Your task to perform on an android device: toggle translation in the chrome app Image 0: 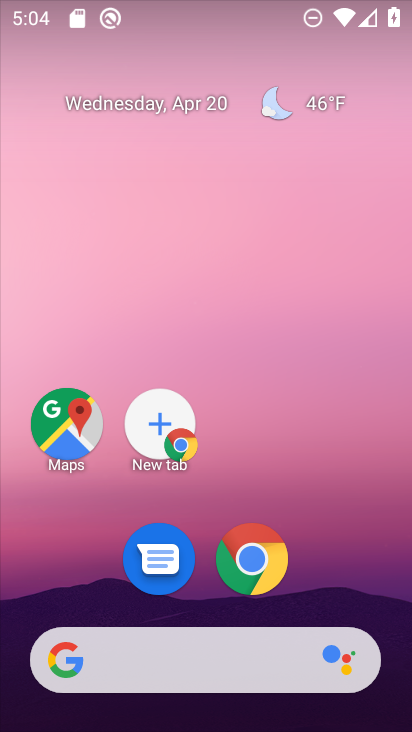
Step 0: click (265, 574)
Your task to perform on an android device: toggle translation in the chrome app Image 1: 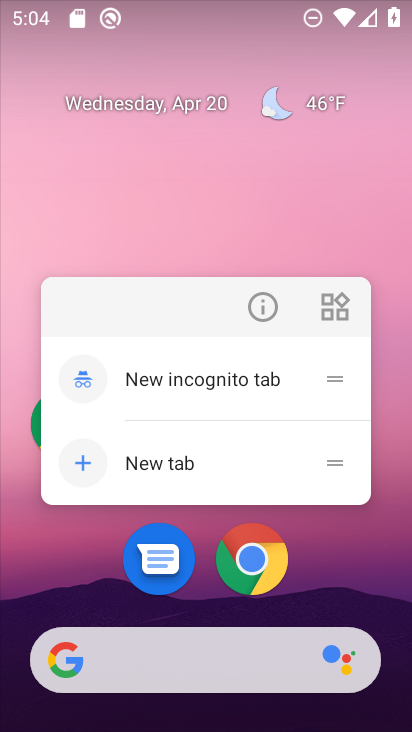
Step 1: click (258, 561)
Your task to perform on an android device: toggle translation in the chrome app Image 2: 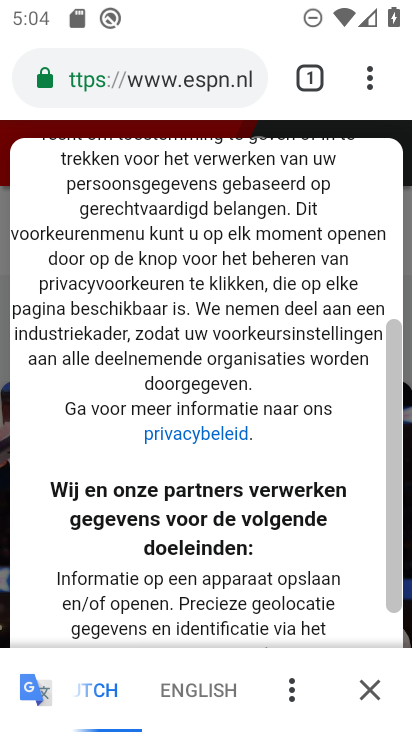
Step 2: click (373, 687)
Your task to perform on an android device: toggle translation in the chrome app Image 3: 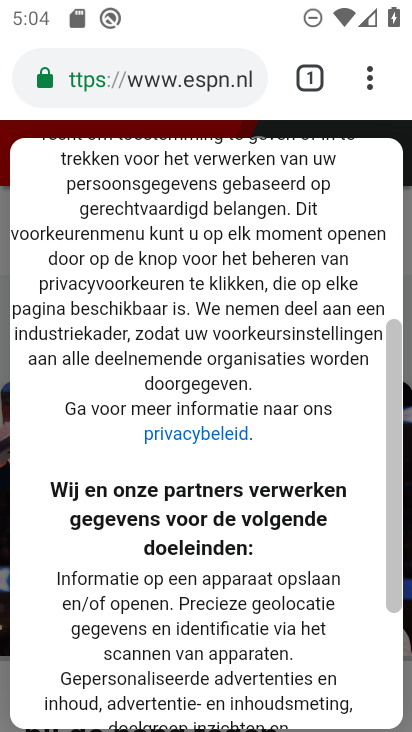
Step 3: click (379, 74)
Your task to perform on an android device: toggle translation in the chrome app Image 4: 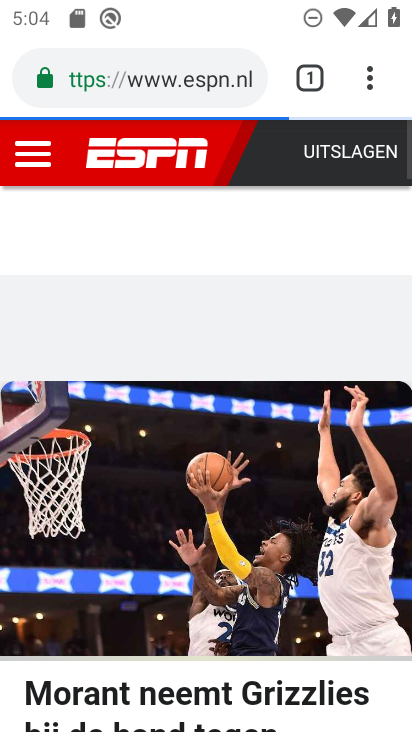
Step 4: click (364, 76)
Your task to perform on an android device: toggle translation in the chrome app Image 5: 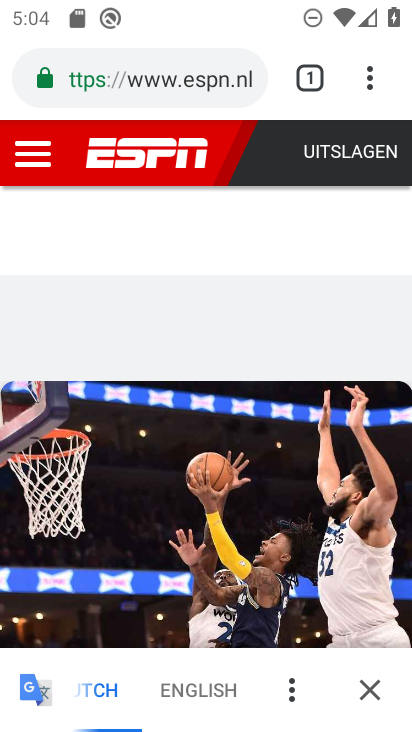
Step 5: click (360, 91)
Your task to perform on an android device: toggle translation in the chrome app Image 6: 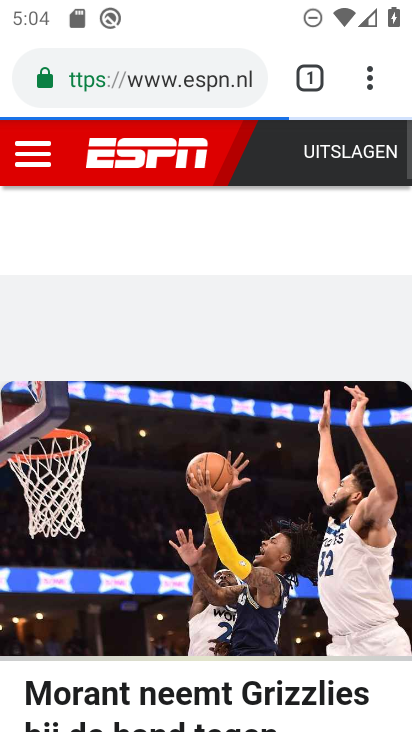
Step 6: click (387, 68)
Your task to perform on an android device: toggle translation in the chrome app Image 7: 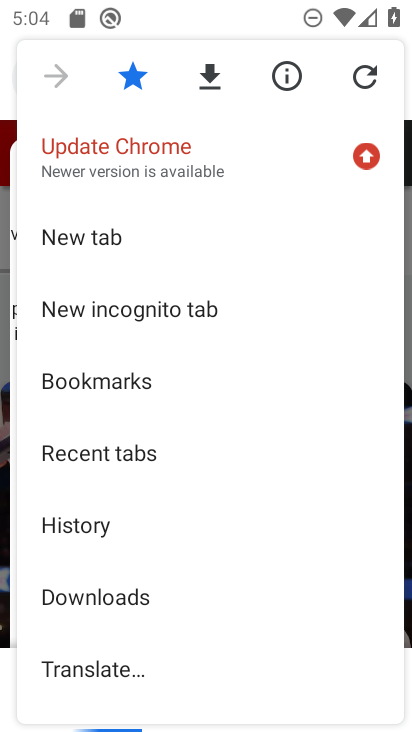
Step 7: drag from (248, 631) to (248, 503)
Your task to perform on an android device: toggle translation in the chrome app Image 8: 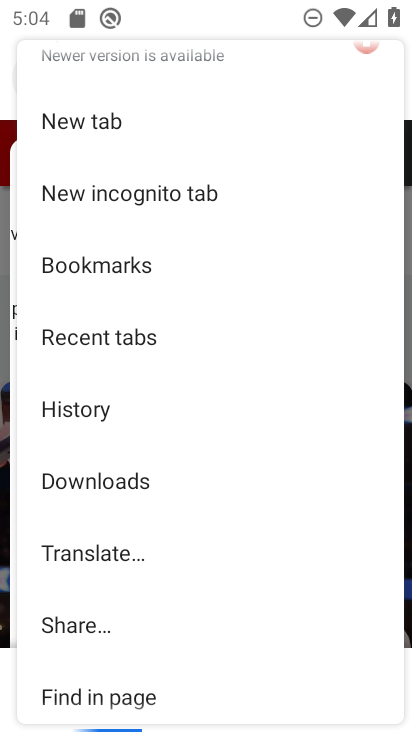
Step 8: drag from (164, 628) to (196, 414)
Your task to perform on an android device: toggle translation in the chrome app Image 9: 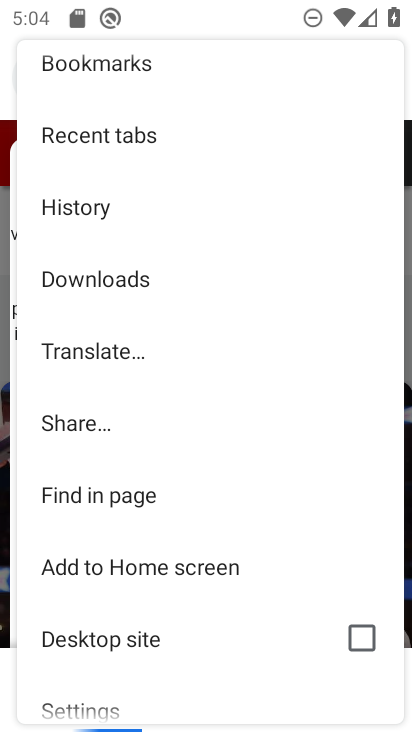
Step 9: click (127, 686)
Your task to perform on an android device: toggle translation in the chrome app Image 10: 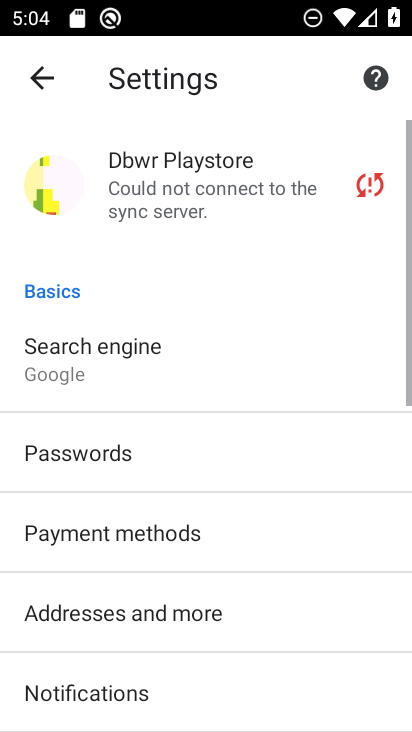
Step 10: drag from (137, 594) to (175, 370)
Your task to perform on an android device: toggle translation in the chrome app Image 11: 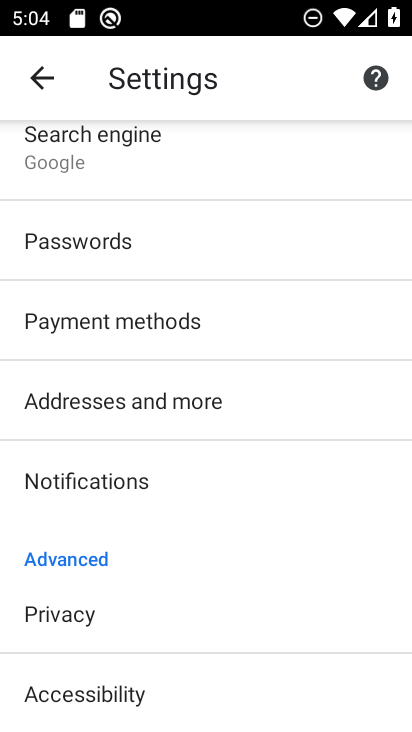
Step 11: drag from (188, 559) to (230, 268)
Your task to perform on an android device: toggle translation in the chrome app Image 12: 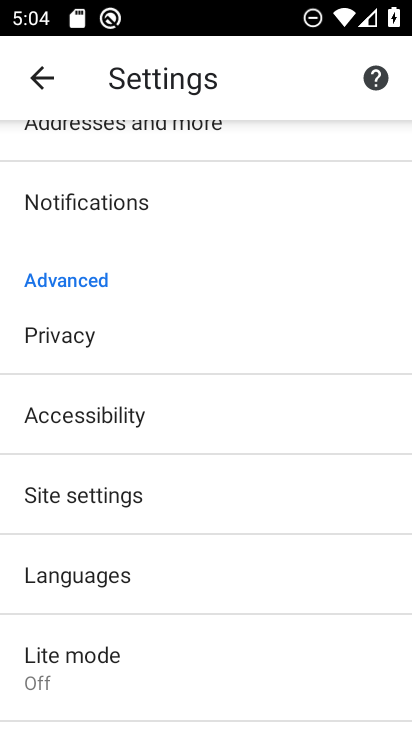
Step 12: click (189, 578)
Your task to perform on an android device: toggle translation in the chrome app Image 13: 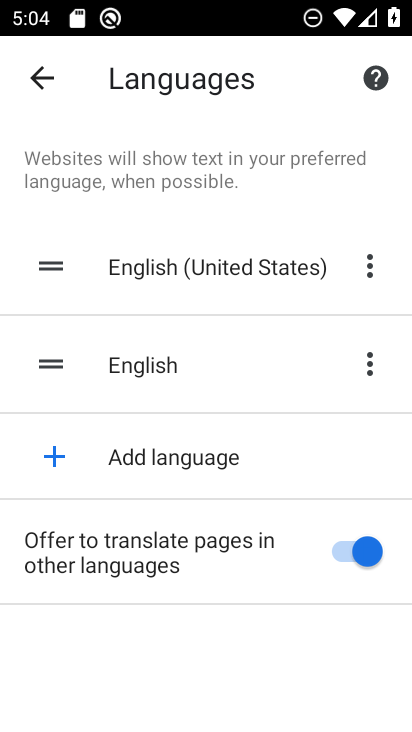
Step 13: click (348, 562)
Your task to perform on an android device: toggle translation in the chrome app Image 14: 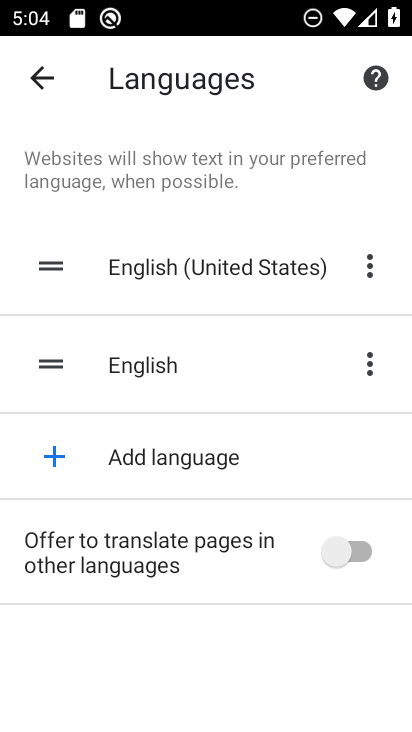
Step 14: task complete